Your task to perform on an android device: Go to CNN.com Image 0: 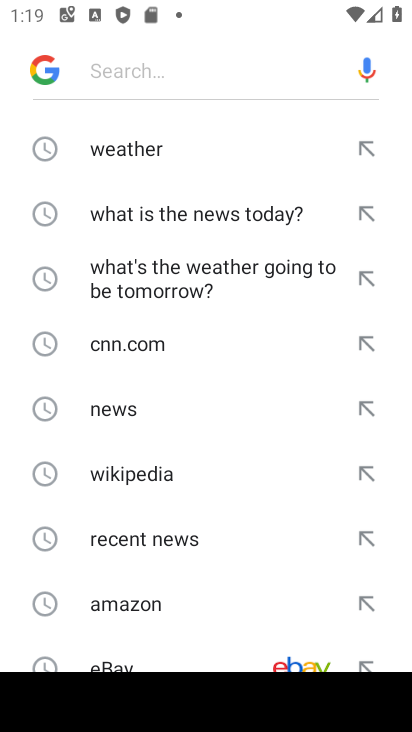
Step 0: type "CNN.com"
Your task to perform on an android device: Go to CNN.com Image 1: 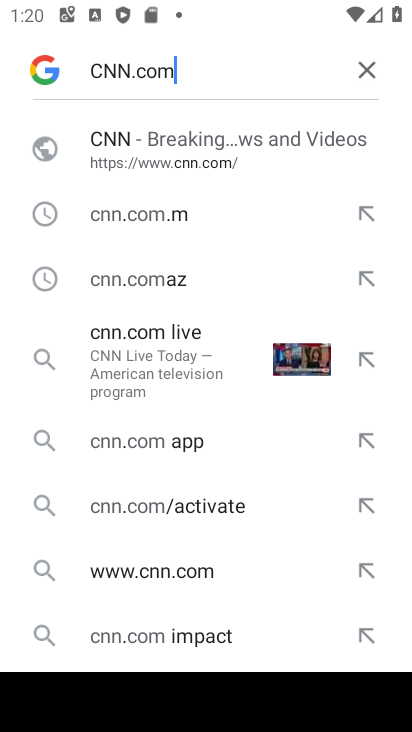
Step 1: click (110, 135)
Your task to perform on an android device: Go to CNN.com Image 2: 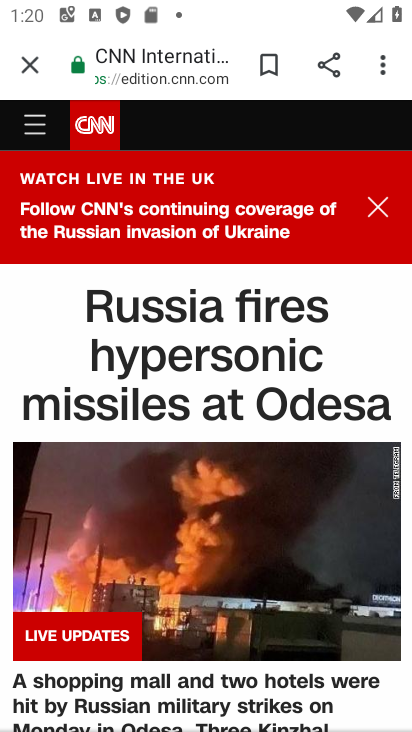
Step 2: task complete